Your task to perform on an android device: Show me productivity apps on the Play Store Image 0: 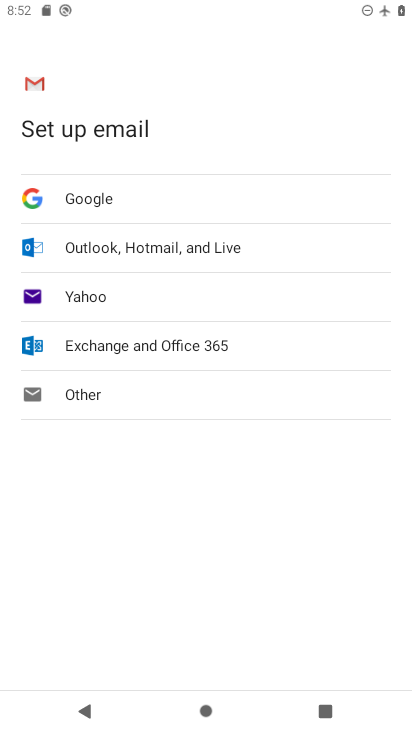
Step 0: press home button
Your task to perform on an android device: Show me productivity apps on the Play Store Image 1: 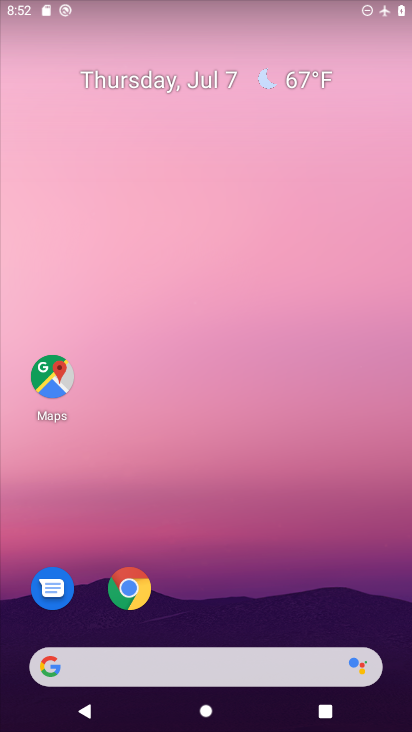
Step 1: drag from (254, 573) to (227, 144)
Your task to perform on an android device: Show me productivity apps on the Play Store Image 2: 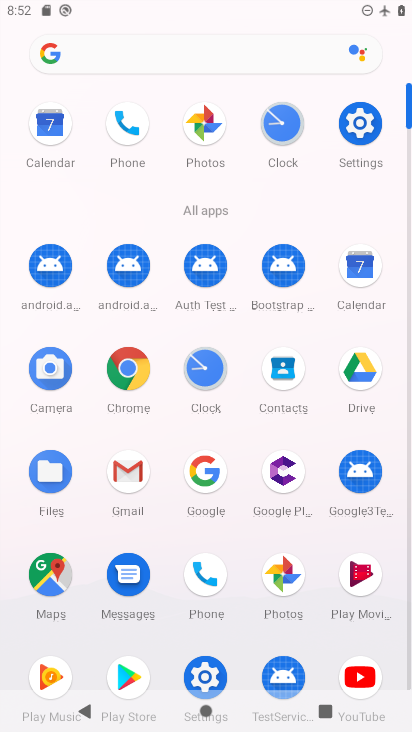
Step 2: click (130, 675)
Your task to perform on an android device: Show me productivity apps on the Play Store Image 3: 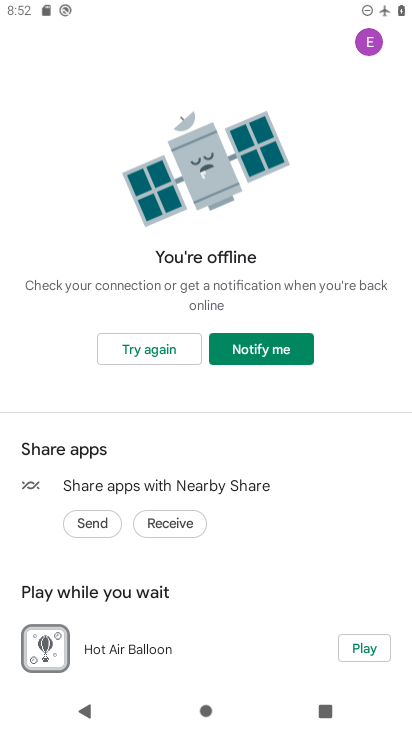
Step 3: click (158, 348)
Your task to perform on an android device: Show me productivity apps on the Play Store Image 4: 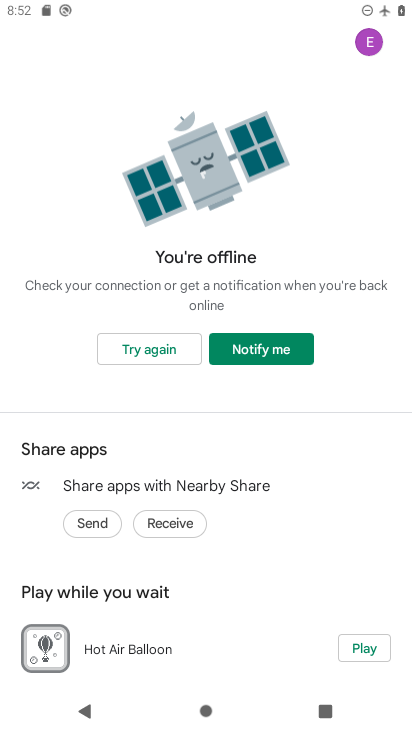
Step 4: click (158, 348)
Your task to perform on an android device: Show me productivity apps on the Play Store Image 5: 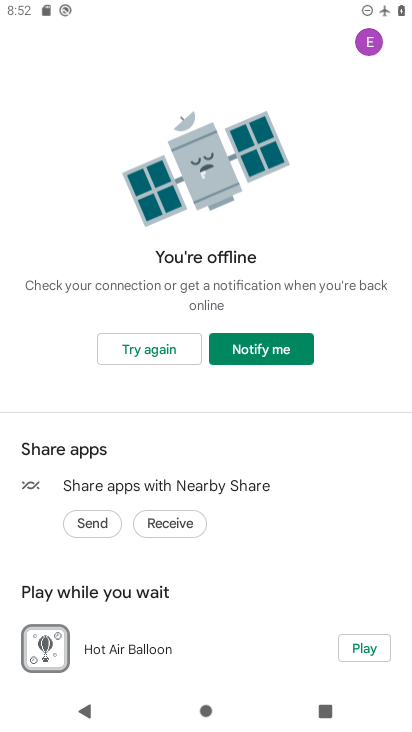
Step 5: task complete